Your task to perform on an android device: open a new tab in the chrome app Image 0: 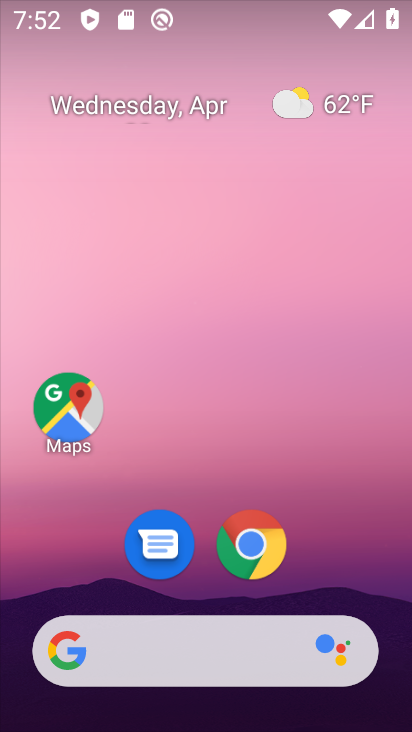
Step 0: click (252, 554)
Your task to perform on an android device: open a new tab in the chrome app Image 1: 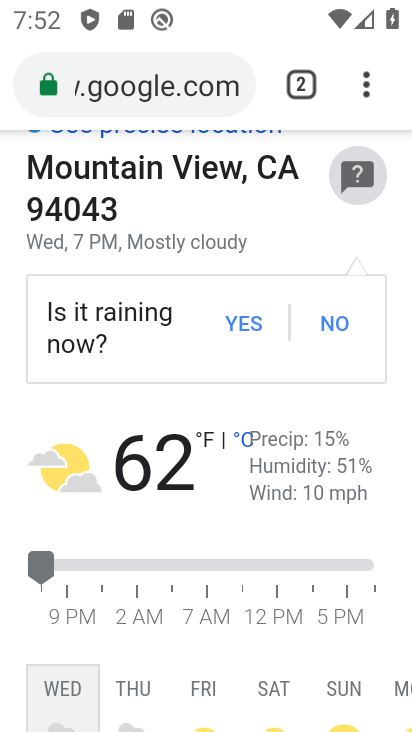
Step 1: click (300, 88)
Your task to perform on an android device: open a new tab in the chrome app Image 2: 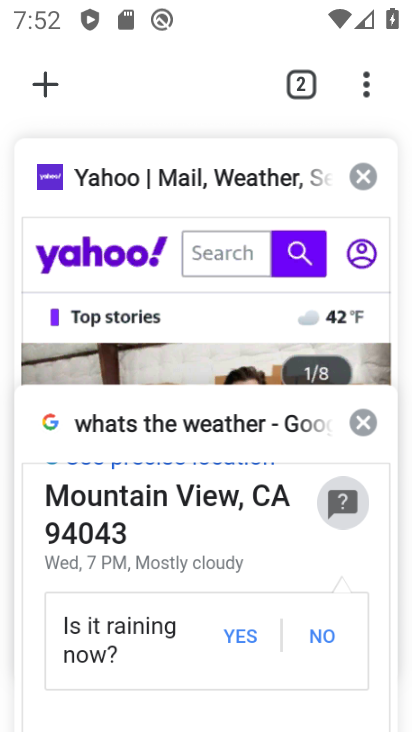
Step 2: click (43, 85)
Your task to perform on an android device: open a new tab in the chrome app Image 3: 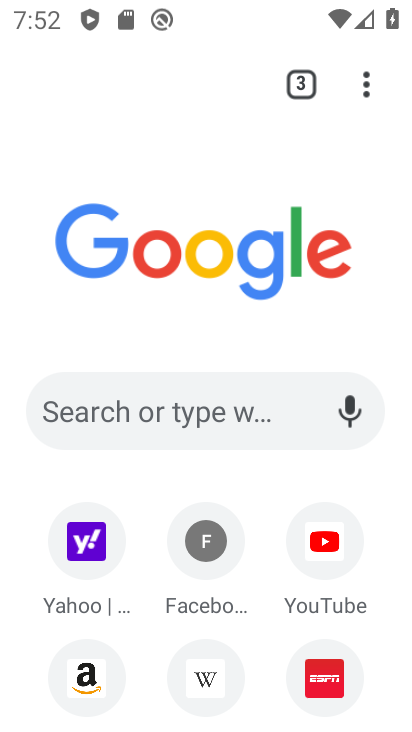
Step 3: task complete